Your task to perform on an android device: Set the phone to "Do not disturb". Image 0: 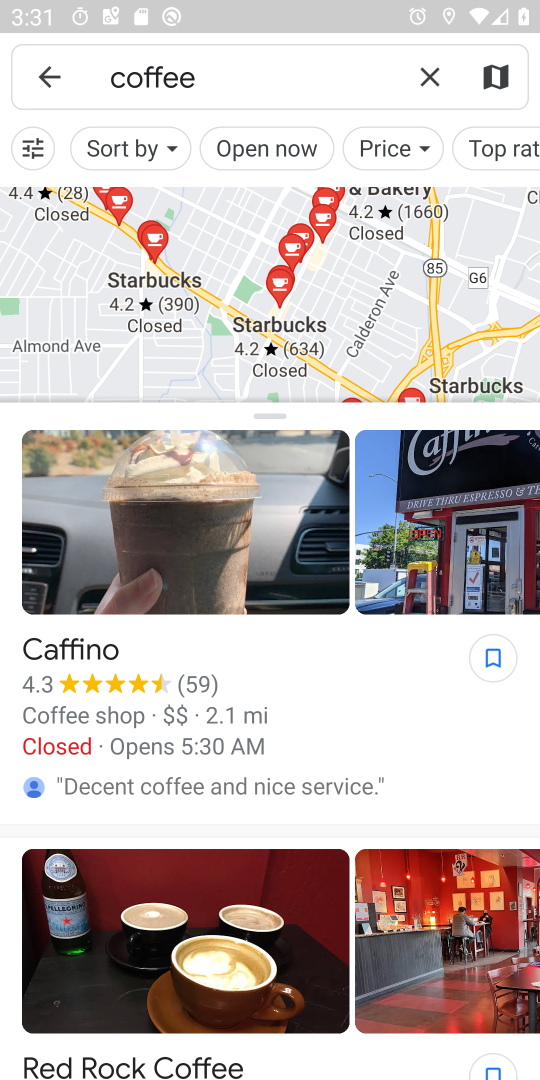
Step 0: press home button
Your task to perform on an android device: Set the phone to "Do not disturb". Image 1: 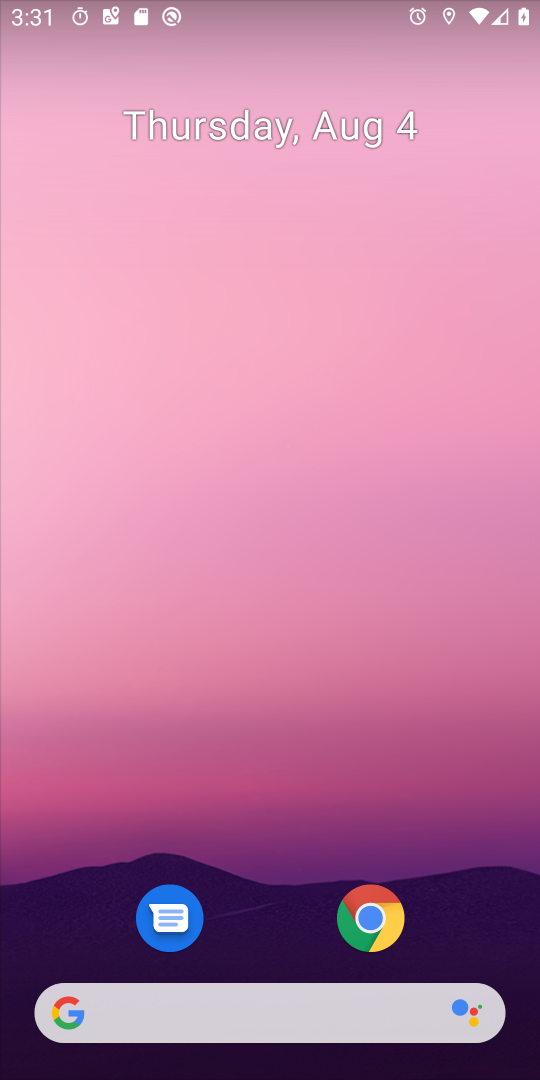
Step 1: drag from (247, 880) to (254, 354)
Your task to perform on an android device: Set the phone to "Do not disturb". Image 2: 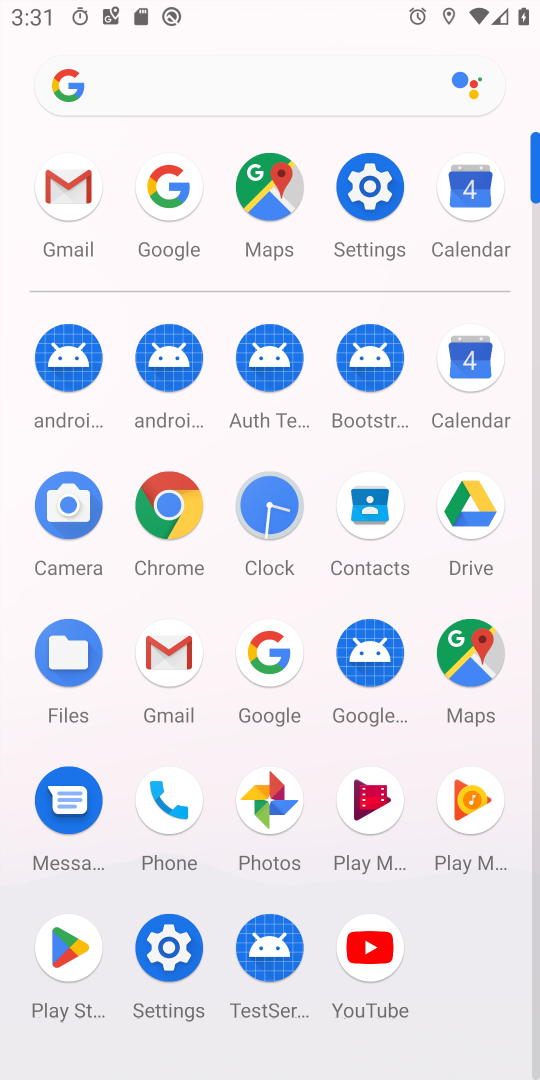
Step 2: click (372, 207)
Your task to perform on an android device: Set the phone to "Do not disturb". Image 3: 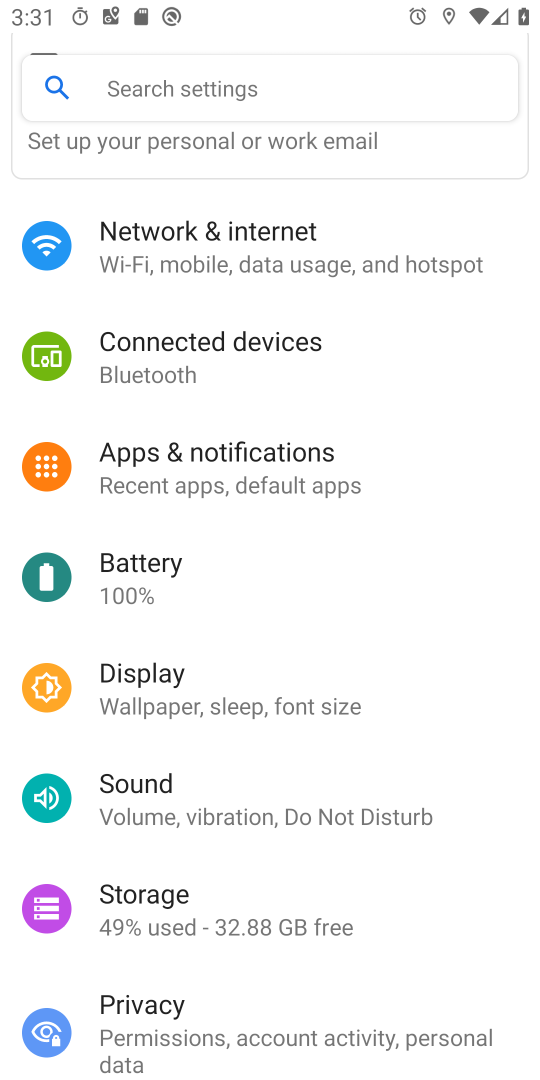
Step 3: click (152, 781)
Your task to perform on an android device: Set the phone to "Do not disturb". Image 4: 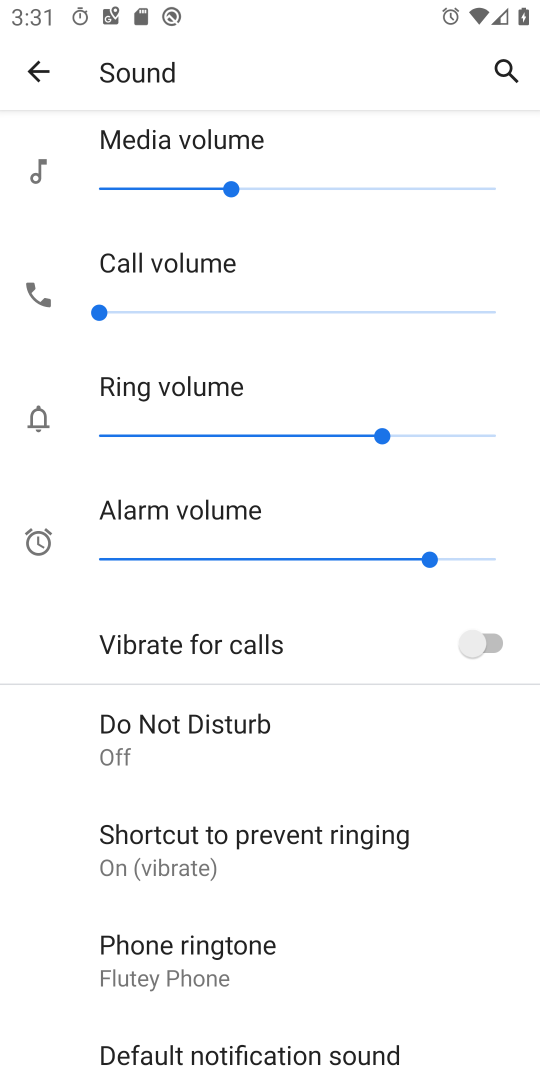
Step 4: click (162, 763)
Your task to perform on an android device: Set the phone to "Do not disturb". Image 5: 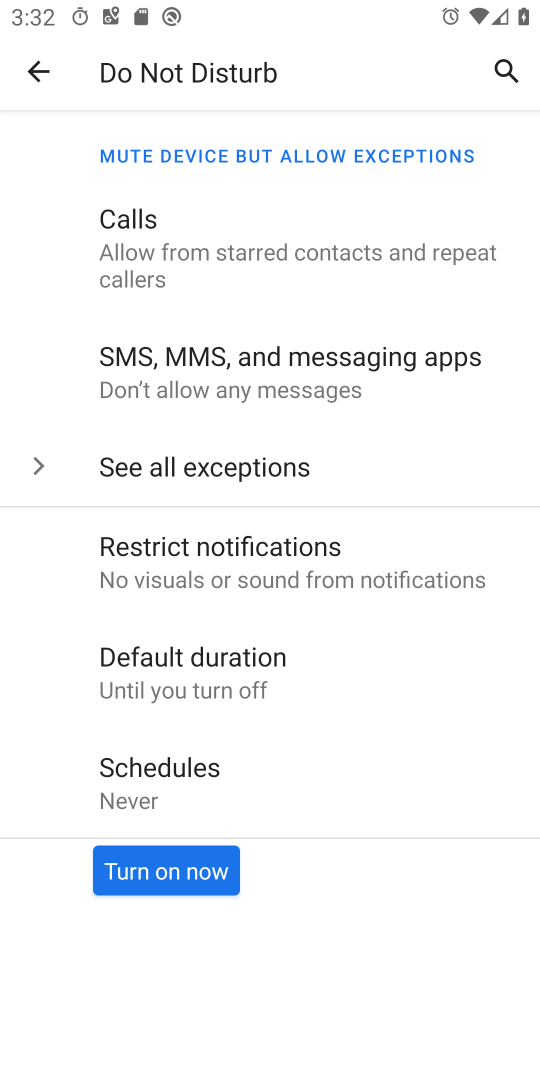
Step 5: click (183, 858)
Your task to perform on an android device: Set the phone to "Do not disturb". Image 6: 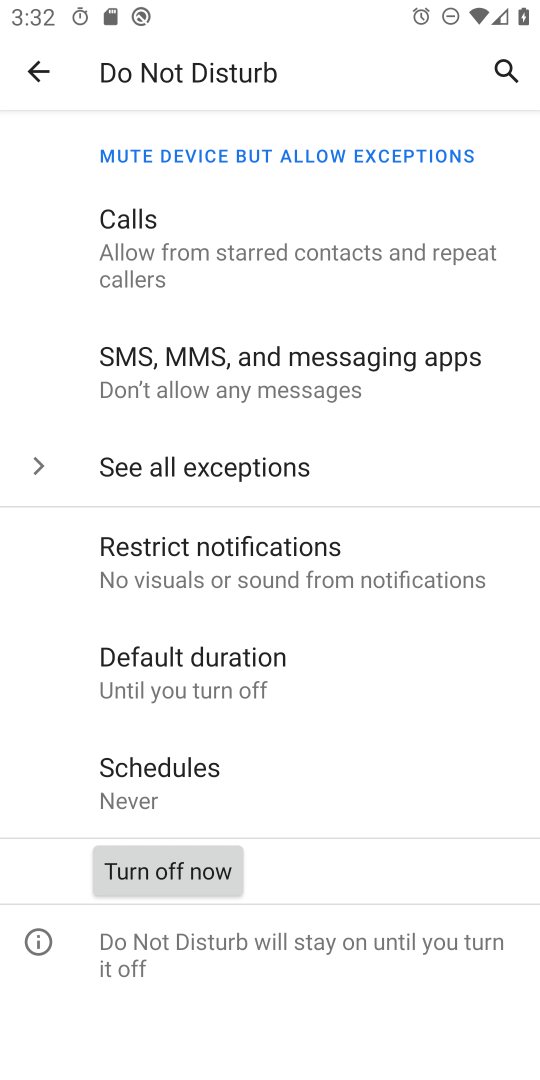
Step 6: task complete